Your task to perform on an android device: Search for flights from Tokyo to Mexico city Image 0: 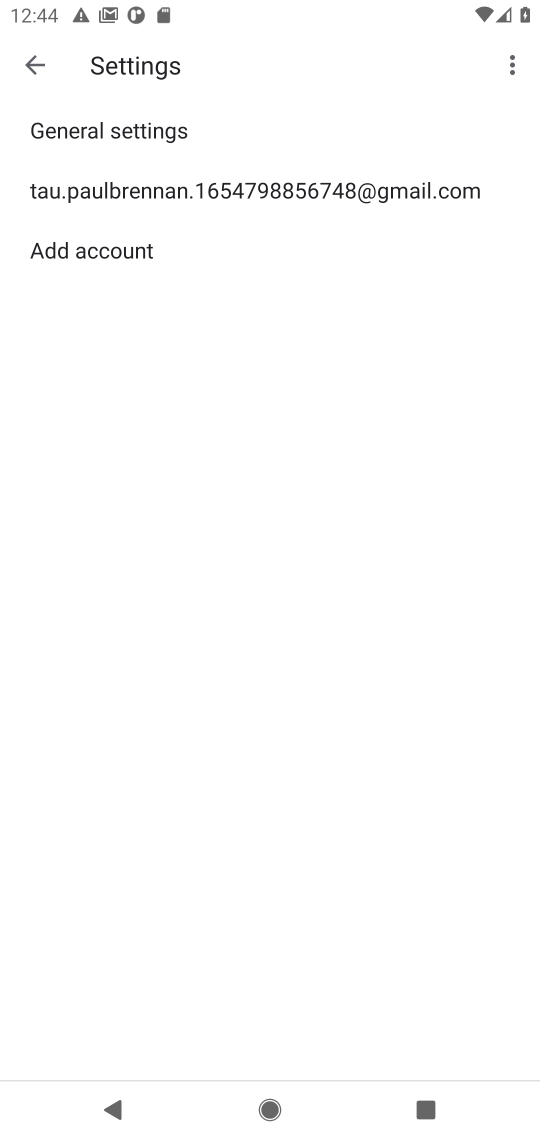
Step 0: press home button
Your task to perform on an android device: Search for flights from Tokyo to Mexico city Image 1: 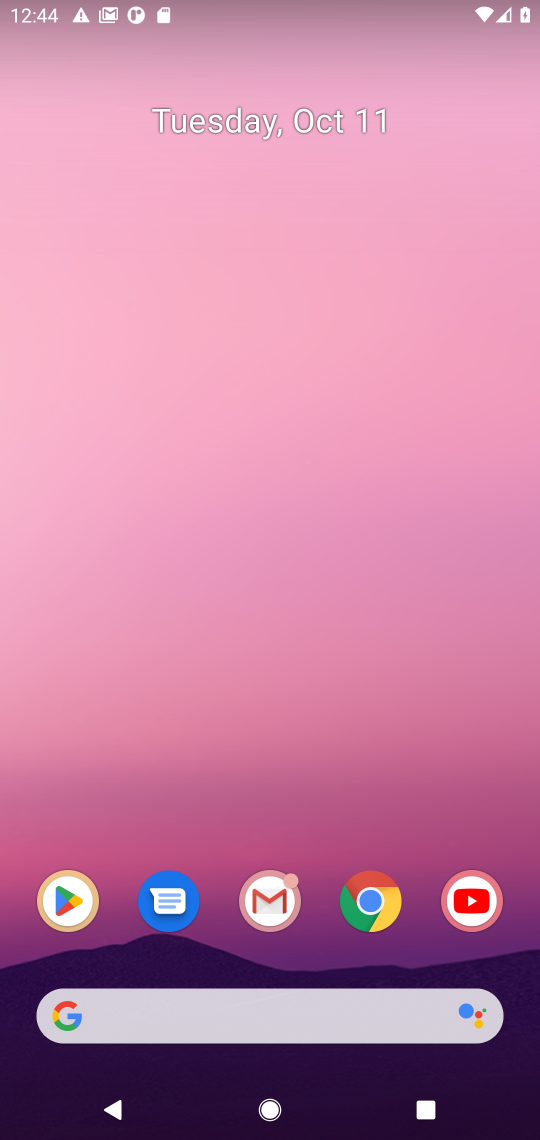
Step 1: click (64, 1020)
Your task to perform on an android device: Search for flights from Tokyo to Mexico city Image 2: 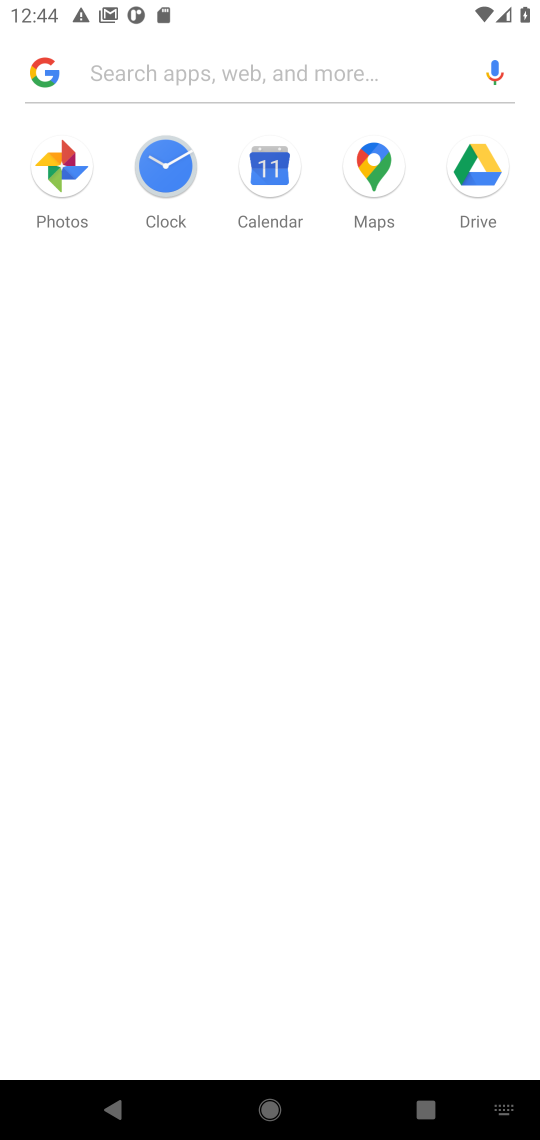
Step 2: click (185, 77)
Your task to perform on an android device: Search for flights from Tokyo to Mexico city Image 3: 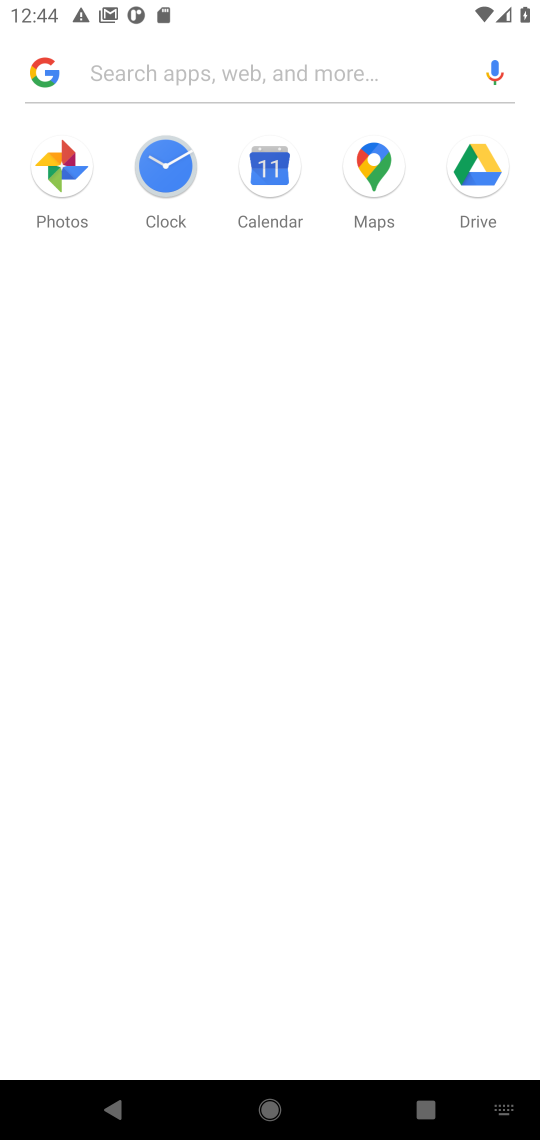
Step 3: type "flights from Tokyo to Mexico city"
Your task to perform on an android device: Search for flights from Tokyo to Mexico city Image 4: 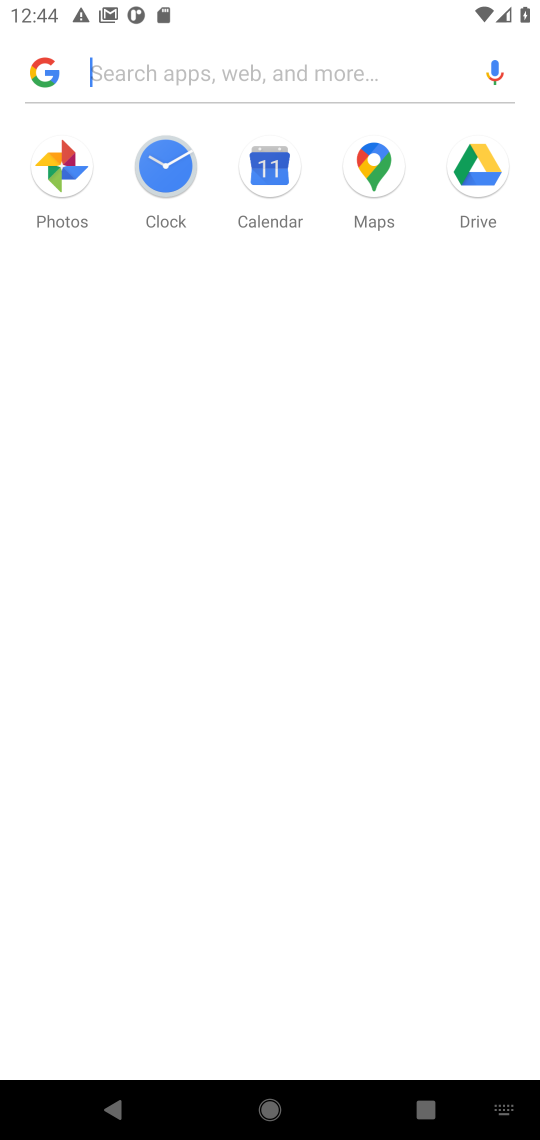
Step 4: click (199, 72)
Your task to perform on an android device: Search for flights from Tokyo to Mexico city Image 5: 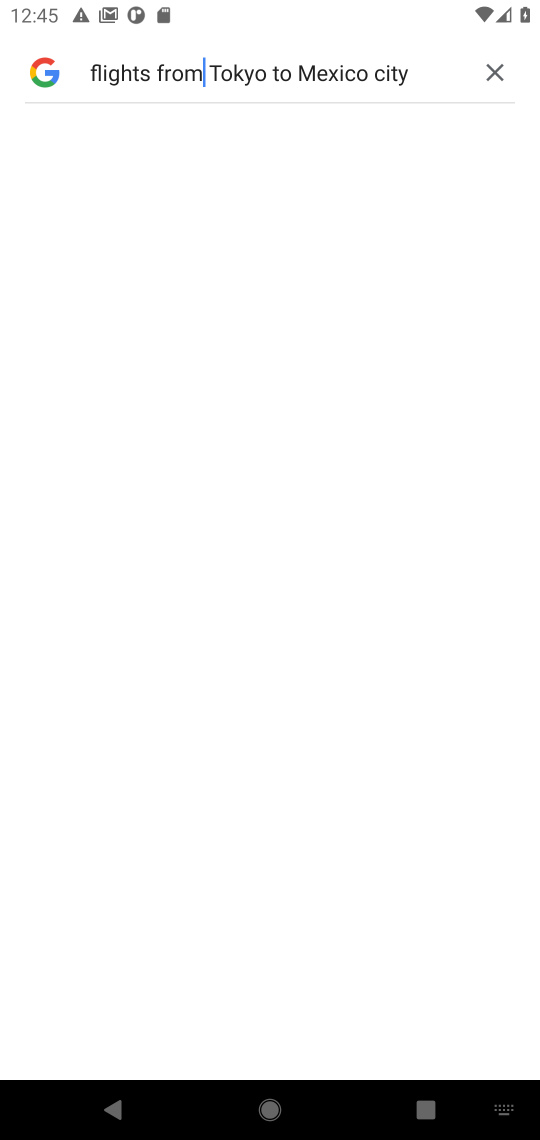
Step 5: press enter
Your task to perform on an android device: Search for flights from Tokyo to Mexico city Image 6: 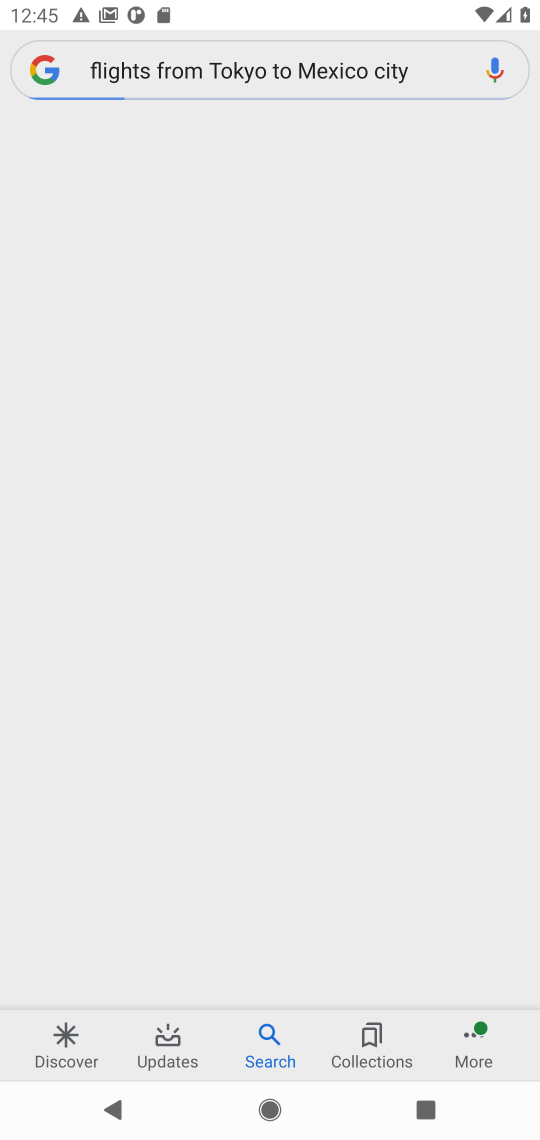
Step 6: press enter
Your task to perform on an android device: Search for flights from Tokyo to Mexico city Image 7: 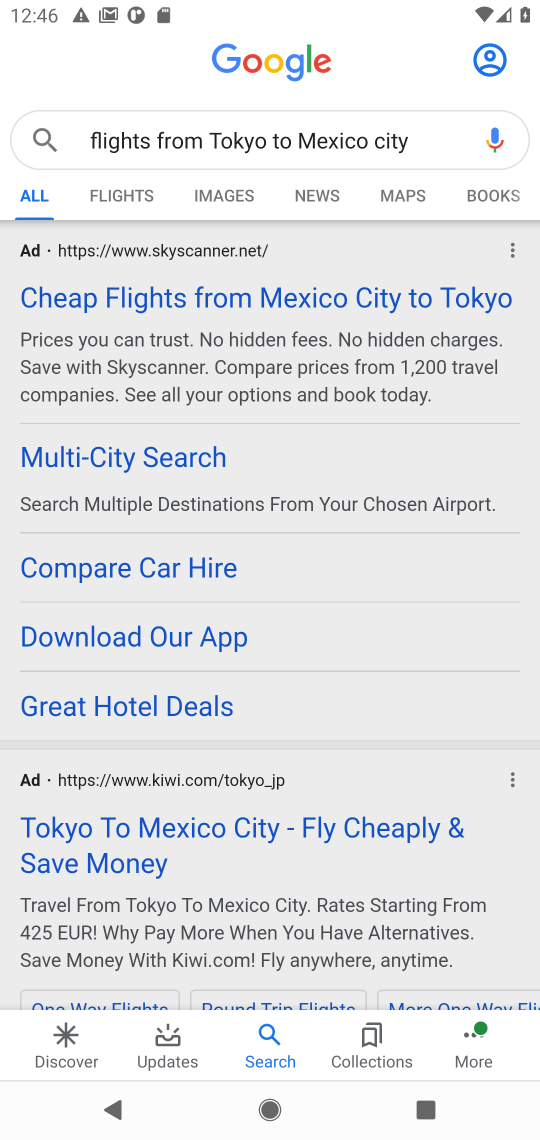
Step 7: task complete